Your task to perform on an android device: toggle pop-ups in chrome Image 0: 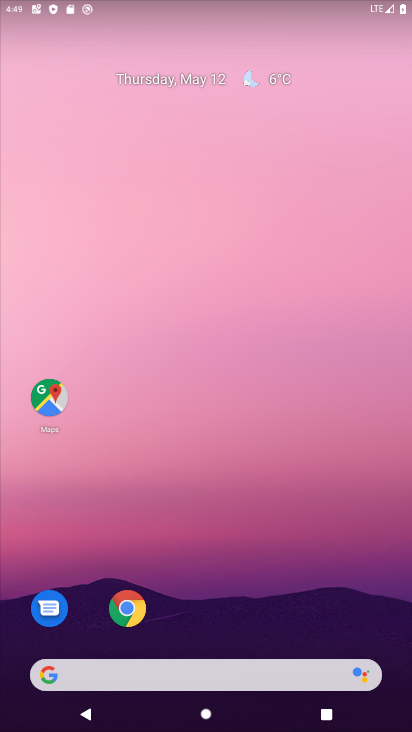
Step 0: click (119, 617)
Your task to perform on an android device: toggle pop-ups in chrome Image 1: 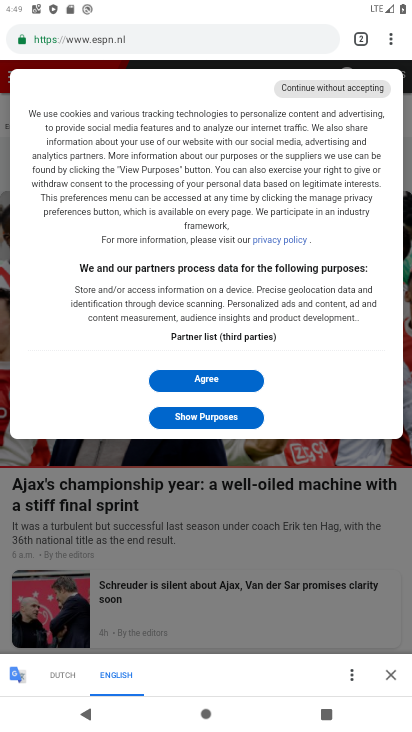
Step 1: click (387, 46)
Your task to perform on an android device: toggle pop-ups in chrome Image 2: 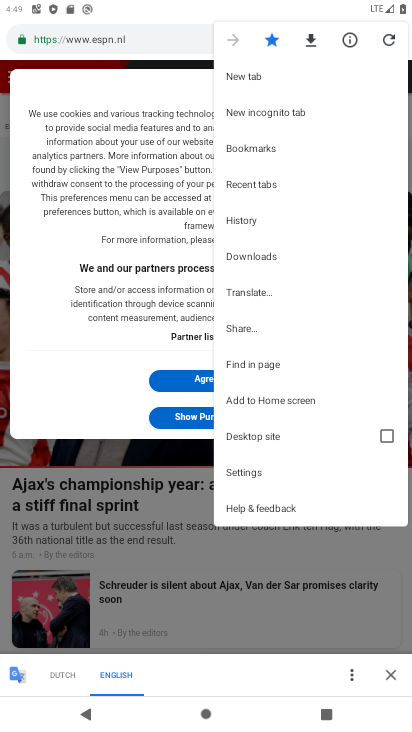
Step 2: click (265, 470)
Your task to perform on an android device: toggle pop-ups in chrome Image 3: 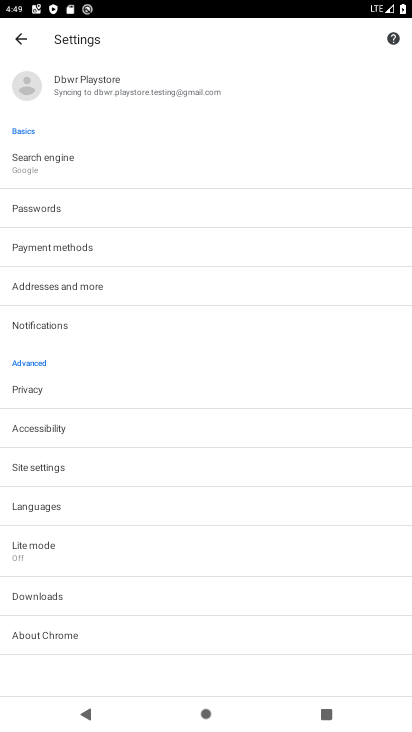
Step 3: click (56, 483)
Your task to perform on an android device: toggle pop-ups in chrome Image 4: 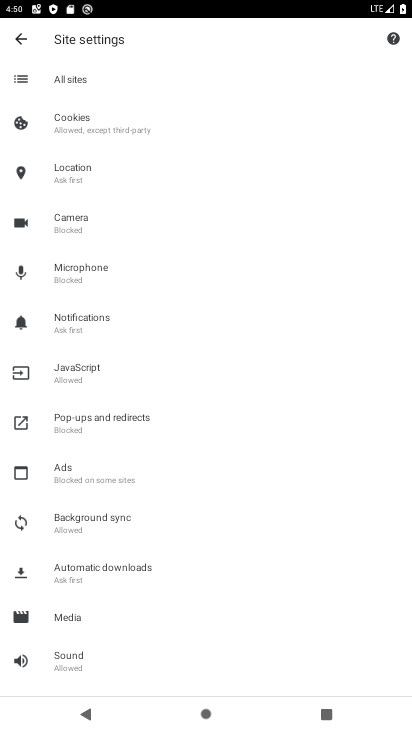
Step 4: click (102, 428)
Your task to perform on an android device: toggle pop-ups in chrome Image 5: 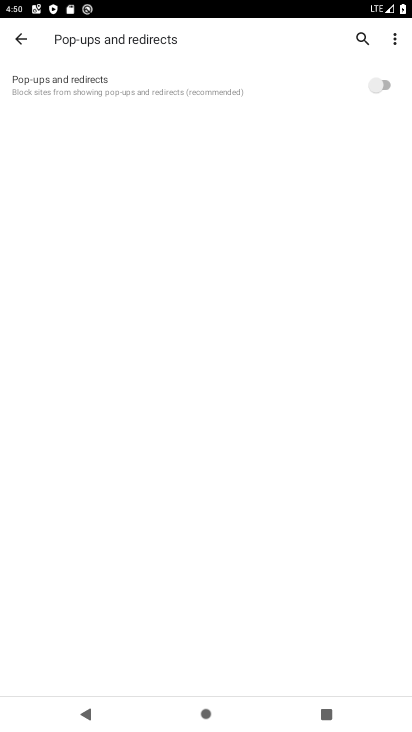
Step 5: click (377, 105)
Your task to perform on an android device: toggle pop-ups in chrome Image 6: 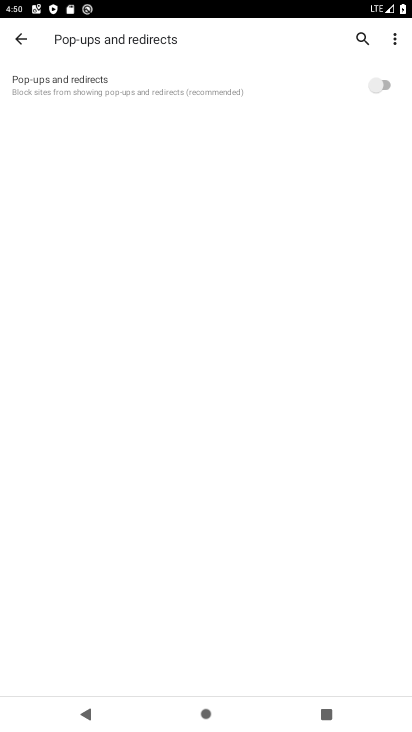
Step 6: click (377, 105)
Your task to perform on an android device: toggle pop-ups in chrome Image 7: 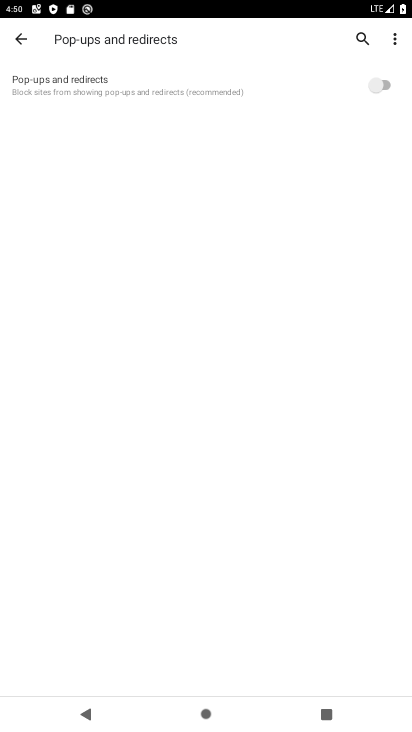
Step 7: click (377, 105)
Your task to perform on an android device: toggle pop-ups in chrome Image 8: 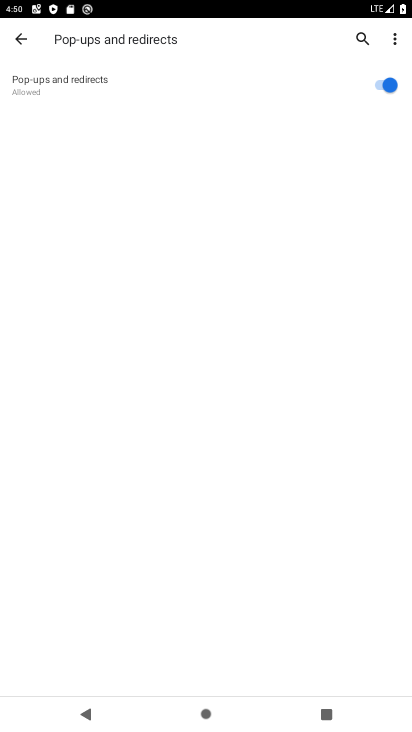
Step 8: task complete